Your task to perform on an android device: toggle improve location accuracy Image 0: 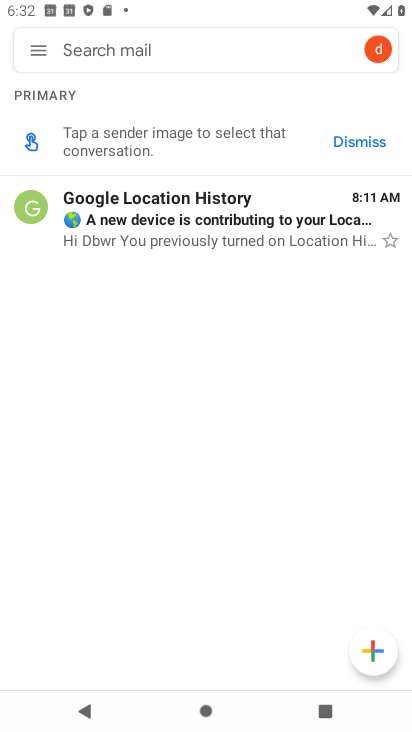
Step 0: press back button
Your task to perform on an android device: toggle improve location accuracy Image 1: 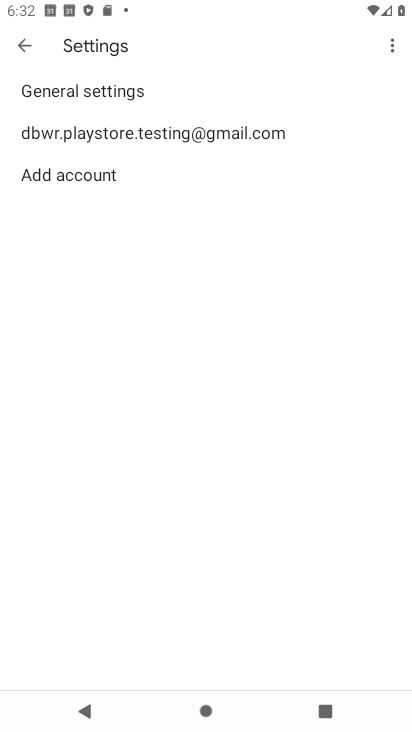
Step 1: press home button
Your task to perform on an android device: toggle improve location accuracy Image 2: 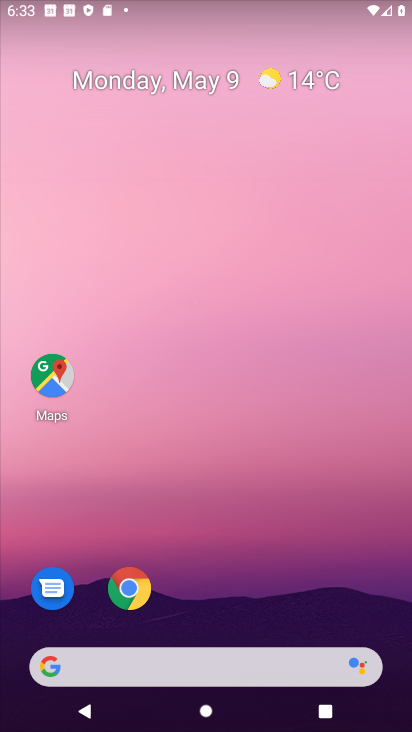
Step 2: drag from (289, 603) to (233, 7)
Your task to perform on an android device: toggle improve location accuracy Image 3: 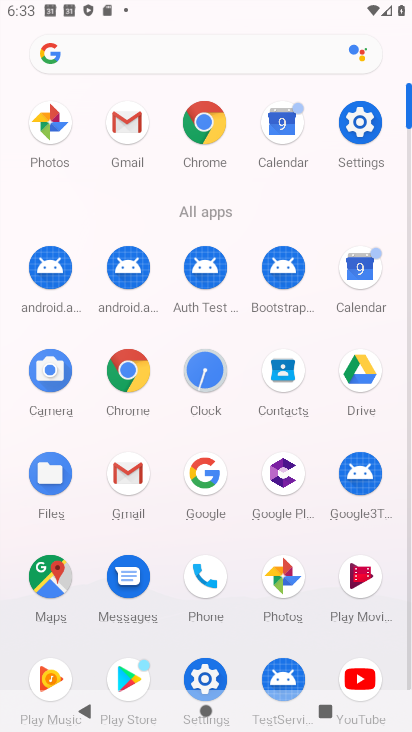
Step 3: click (202, 674)
Your task to perform on an android device: toggle improve location accuracy Image 4: 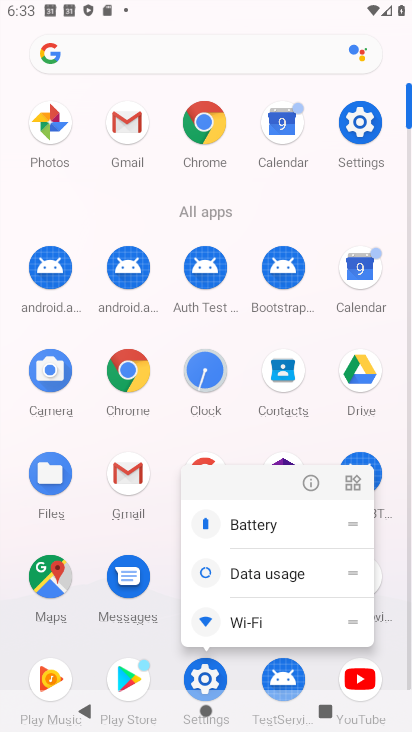
Step 4: click (201, 673)
Your task to perform on an android device: toggle improve location accuracy Image 5: 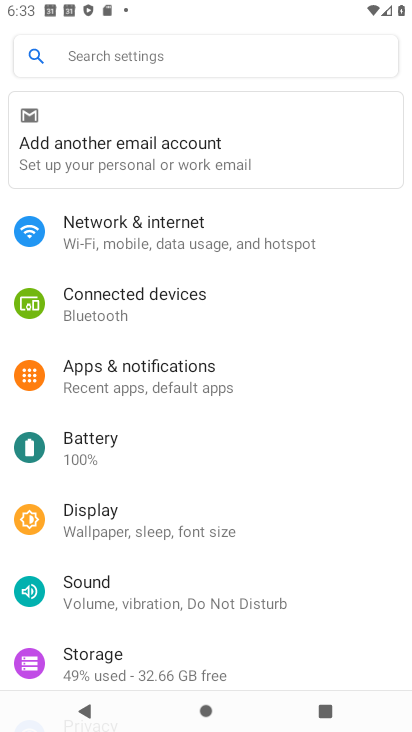
Step 5: drag from (118, 620) to (159, 230)
Your task to perform on an android device: toggle improve location accuracy Image 6: 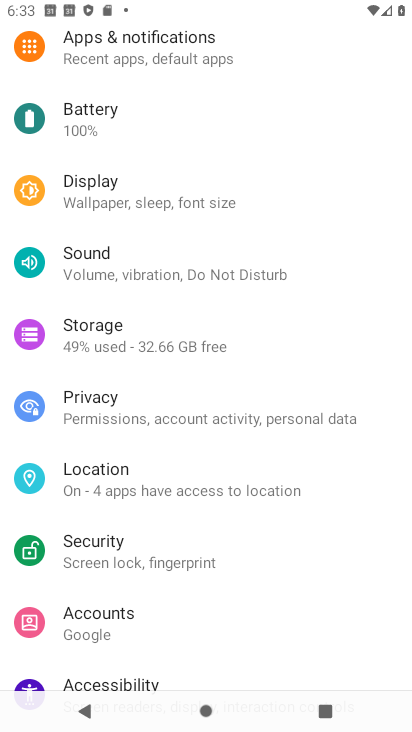
Step 6: click (116, 470)
Your task to perform on an android device: toggle improve location accuracy Image 7: 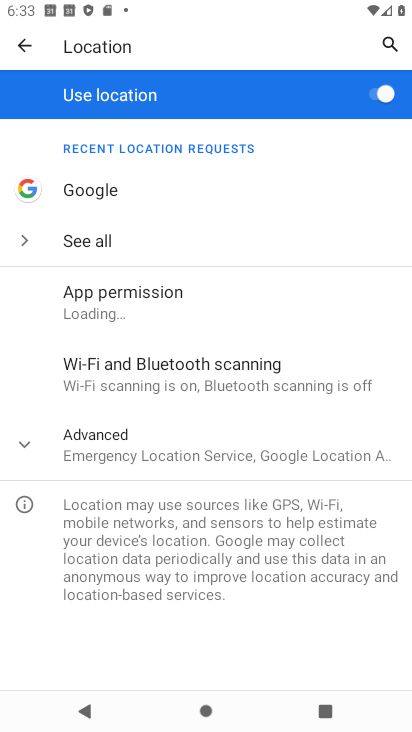
Step 7: click (131, 461)
Your task to perform on an android device: toggle improve location accuracy Image 8: 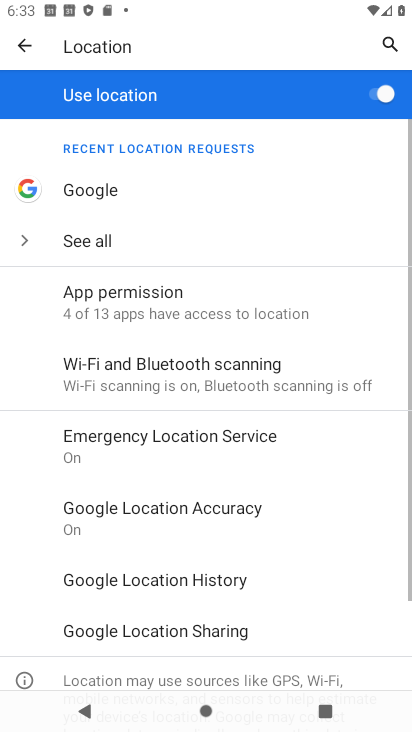
Step 8: click (128, 518)
Your task to perform on an android device: toggle improve location accuracy Image 9: 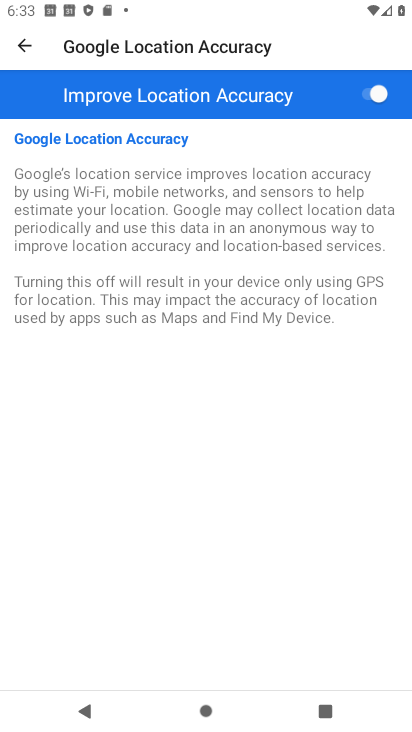
Step 9: click (352, 101)
Your task to perform on an android device: toggle improve location accuracy Image 10: 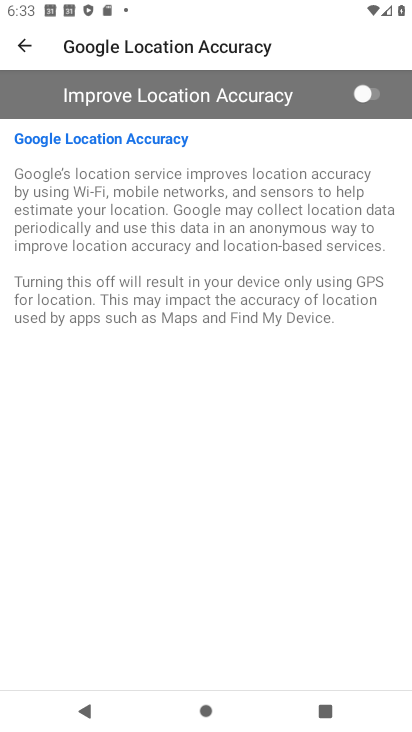
Step 10: task complete